Your task to perform on an android device: turn on airplane mode Image 0: 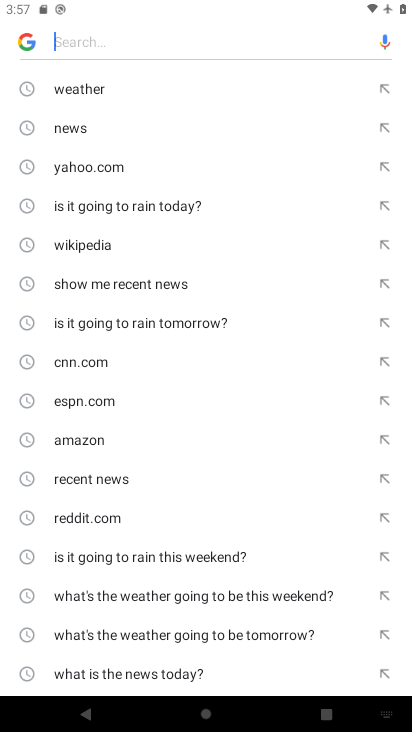
Step 0: press home button
Your task to perform on an android device: turn on airplane mode Image 1: 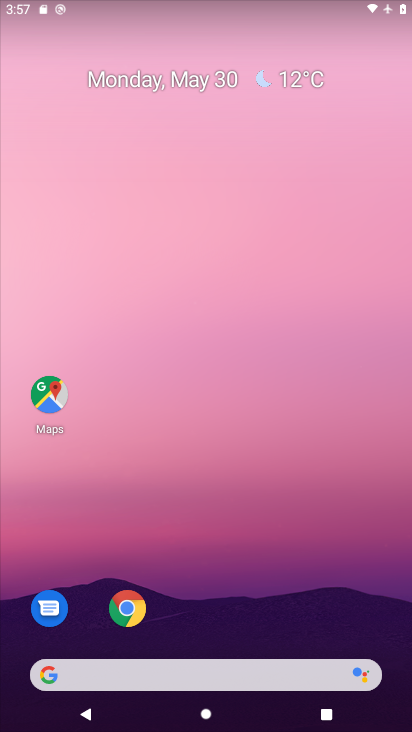
Step 1: drag from (268, 479) to (197, 71)
Your task to perform on an android device: turn on airplane mode Image 2: 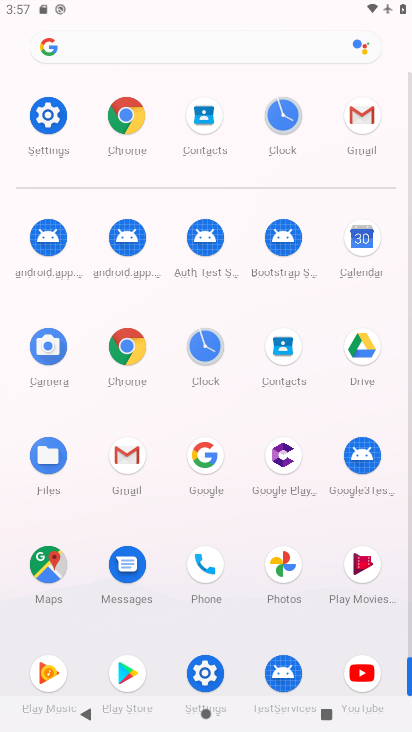
Step 2: click (46, 118)
Your task to perform on an android device: turn on airplane mode Image 3: 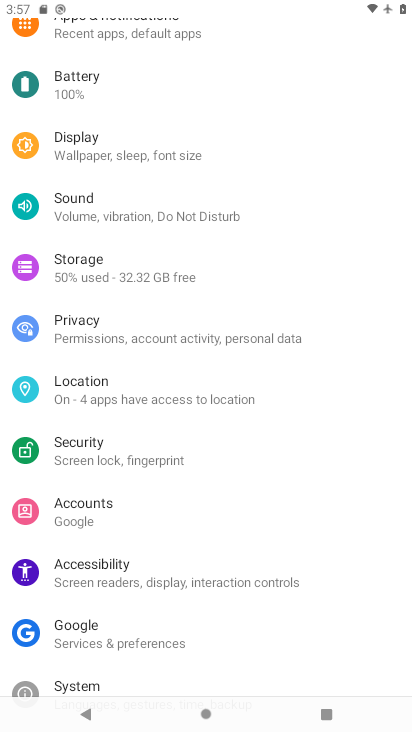
Step 3: drag from (177, 257) to (190, 638)
Your task to perform on an android device: turn on airplane mode Image 4: 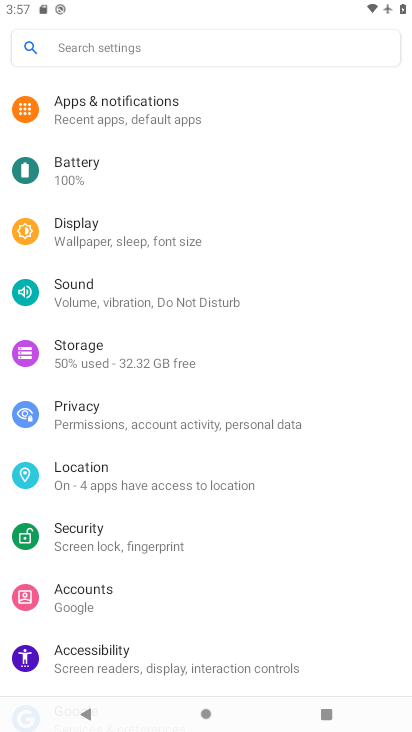
Step 4: drag from (197, 95) to (203, 647)
Your task to perform on an android device: turn on airplane mode Image 5: 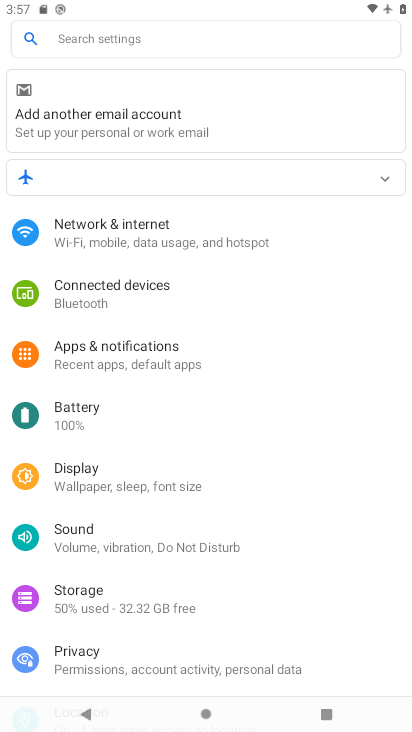
Step 5: click (165, 229)
Your task to perform on an android device: turn on airplane mode Image 6: 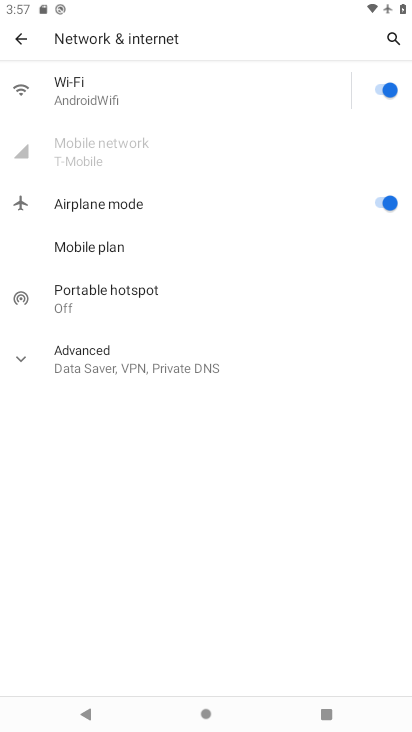
Step 6: task complete